Your task to perform on an android device: change alarm snooze length Image 0: 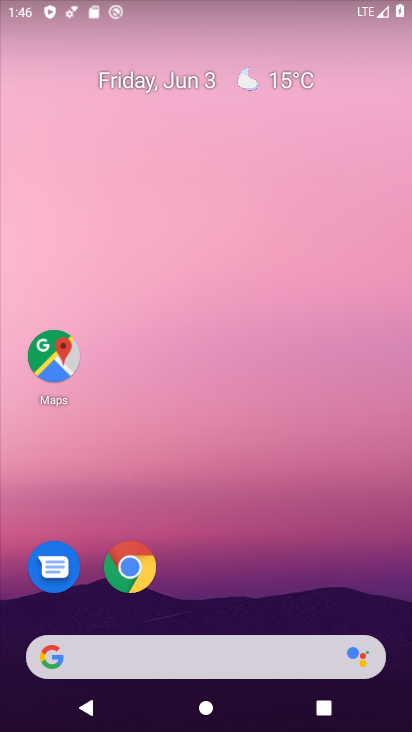
Step 0: drag from (219, 633) to (234, 255)
Your task to perform on an android device: change alarm snooze length Image 1: 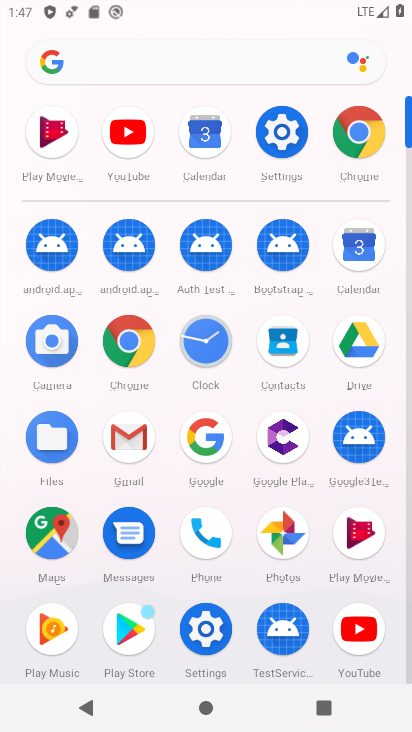
Step 1: click (207, 342)
Your task to perform on an android device: change alarm snooze length Image 2: 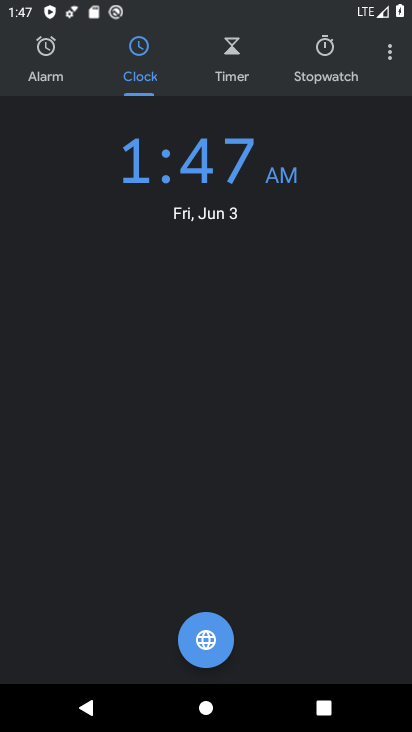
Step 2: click (388, 55)
Your task to perform on an android device: change alarm snooze length Image 3: 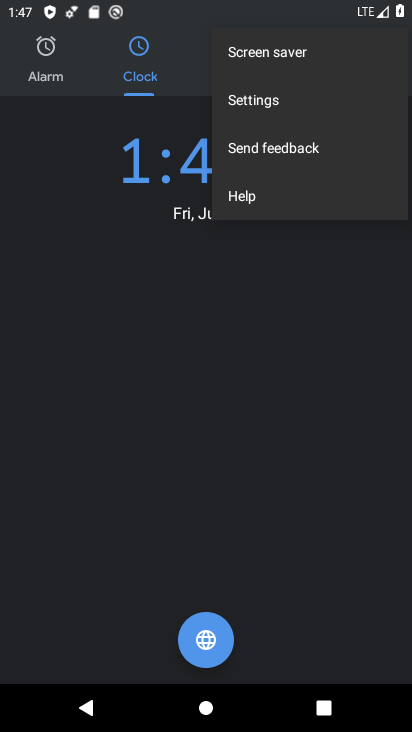
Step 3: click (266, 100)
Your task to perform on an android device: change alarm snooze length Image 4: 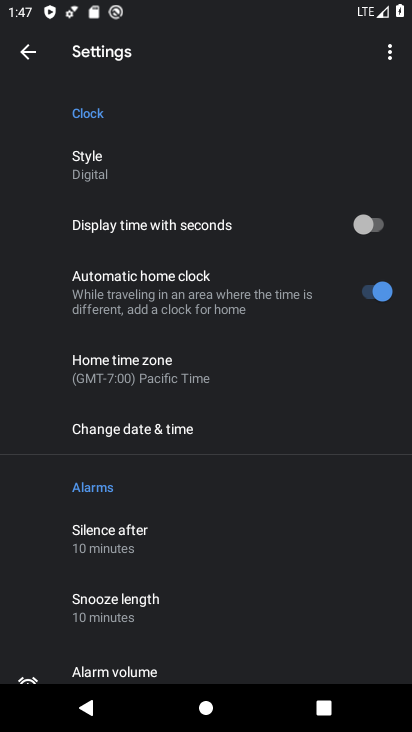
Step 4: click (116, 603)
Your task to perform on an android device: change alarm snooze length Image 5: 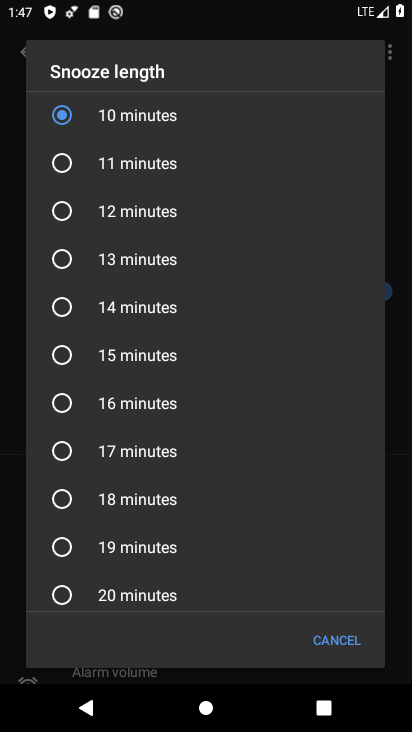
Step 5: click (157, 405)
Your task to perform on an android device: change alarm snooze length Image 6: 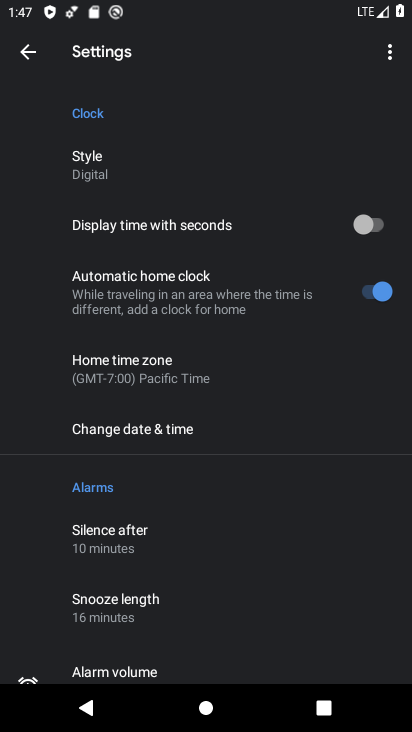
Step 6: task complete